Your task to perform on an android device: delete location history Image 0: 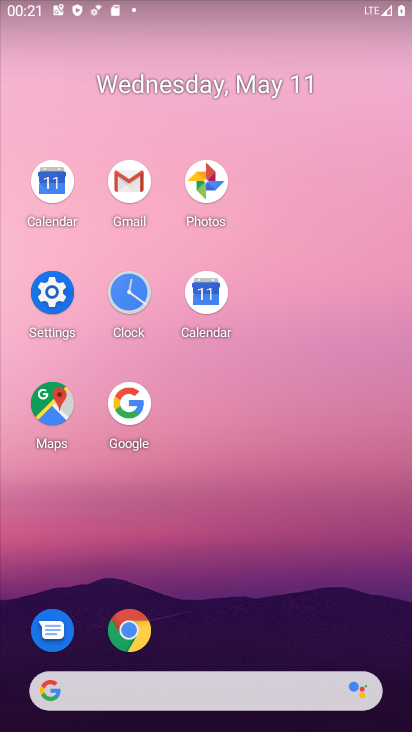
Step 0: click (48, 286)
Your task to perform on an android device: delete location history Image 1: 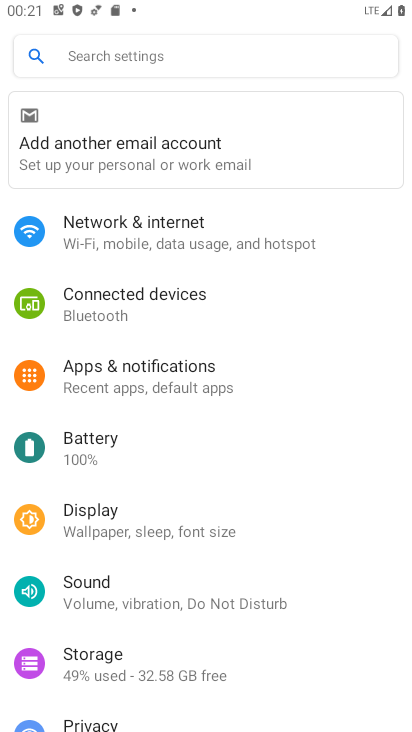
Step 1: drag from (257, 621) to (292, 264)
Your task to perform on an android device: delete location history Image 2: 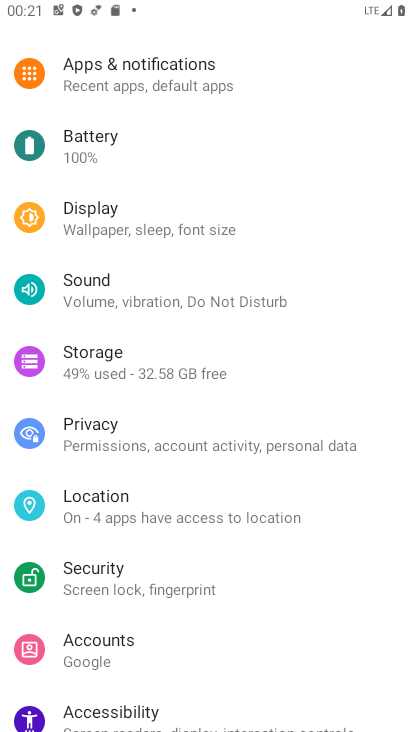
Step 2: click (155, 507)
Your task to perform on an android device: delete location history Image 3: 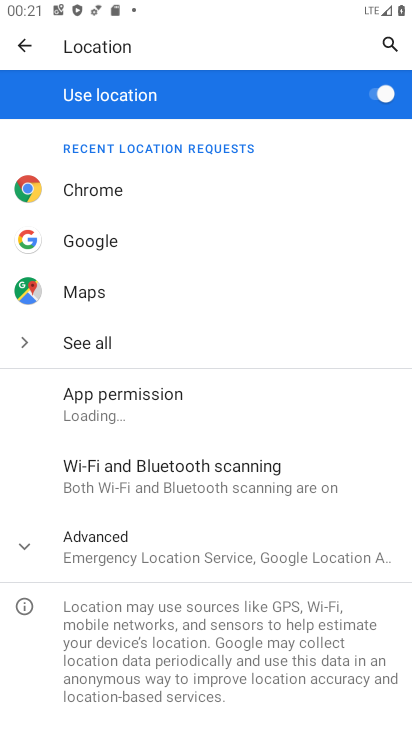
Step 3: click (177, 556)
Your task to perform on an android device: delete location history Image 4: 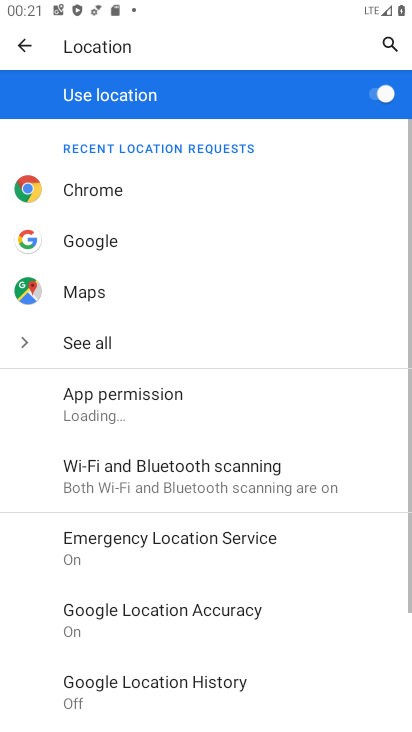
Step 4: drag from (319, 657) to (323, 277)
Your task to perform on an android device: delete location history Image 5: 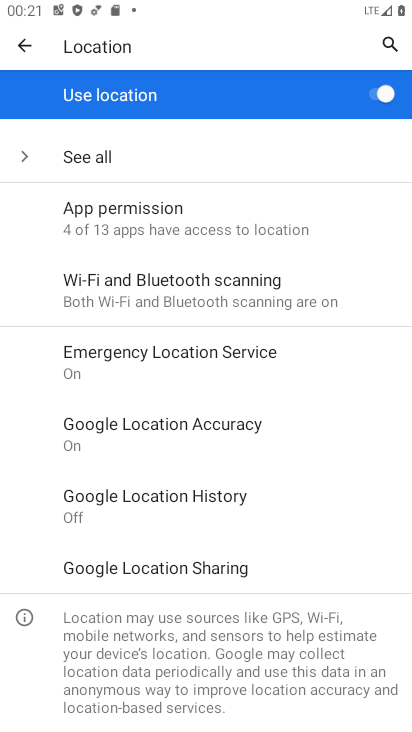
Step 5: click (203, 499)
Your task to perform on an android device: delete location history Image 6: 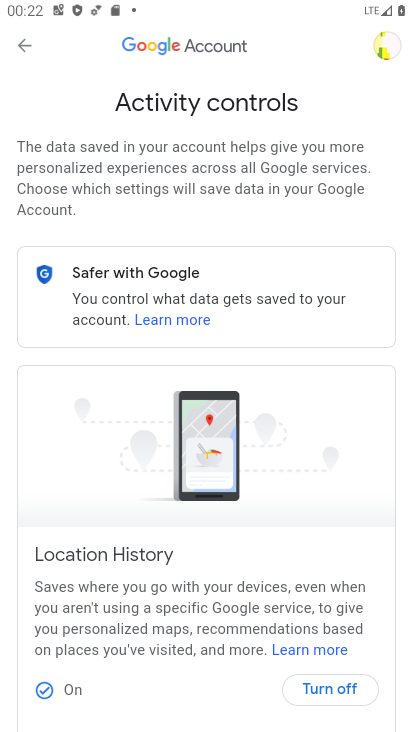
Step 6: drag from (204, 675) to (239, 190)
Your task to perform on an android device: delete location history Image 7: 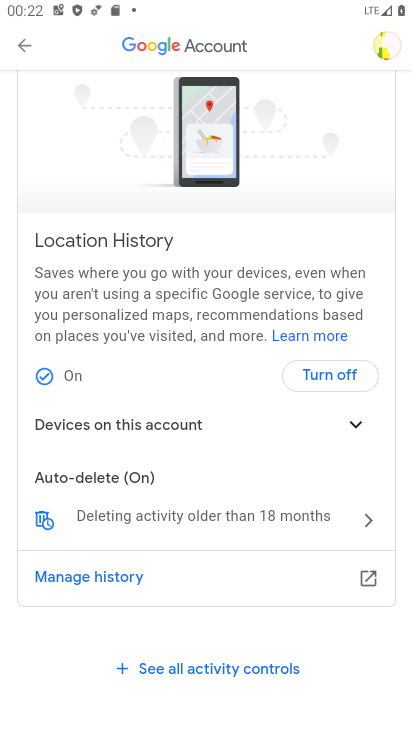
Step 7: click (274, 522)
Your task to perform on an android device: delete location history Image 8: 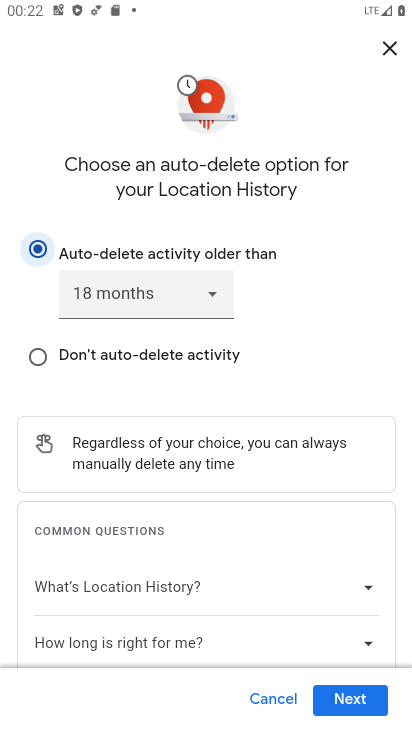
Step 8: drag from (267, 633) to (299, 238)
Your task to perform on an android device: delete location history Image 9: 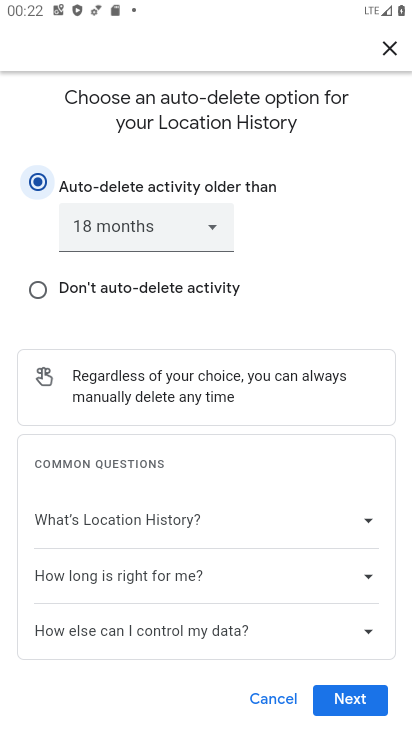
Step 9: click (363, 701)
Your task to perform on an android device: delete location history Image 10: 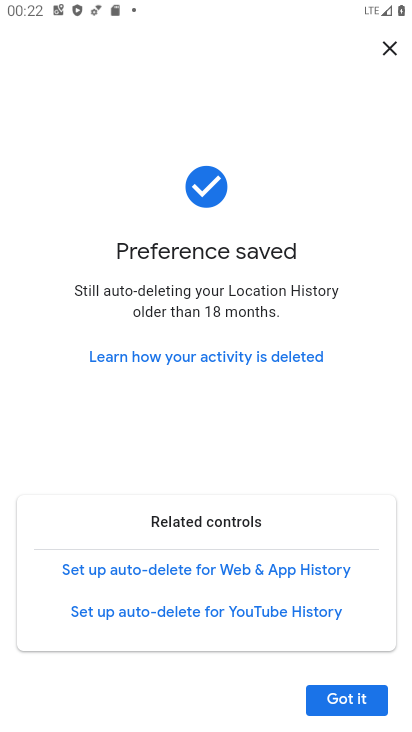
Step 10: click (380, 714)
Your task to perform on an android device: delete location history Image 11: 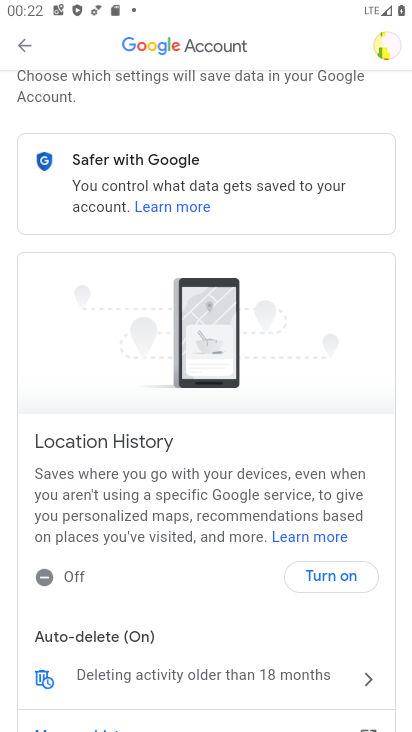
Step 11: task complete